Your task to perform on an android device: What's the weather today? Image 0: 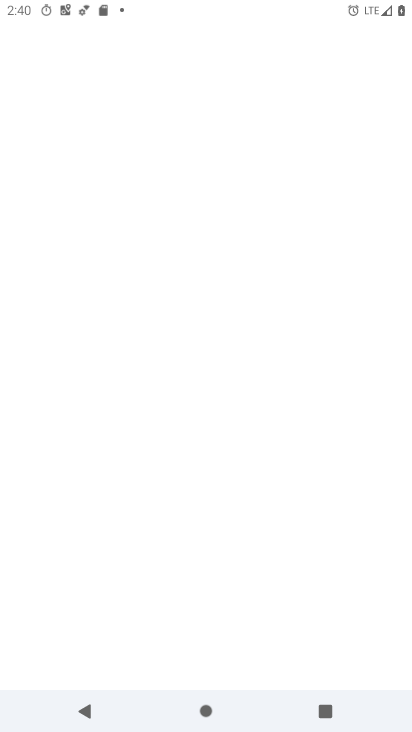
Step 0: drag from (270, 617) to (339, 211)
Your task to perform on an android device: What's the weather today? Image 1: 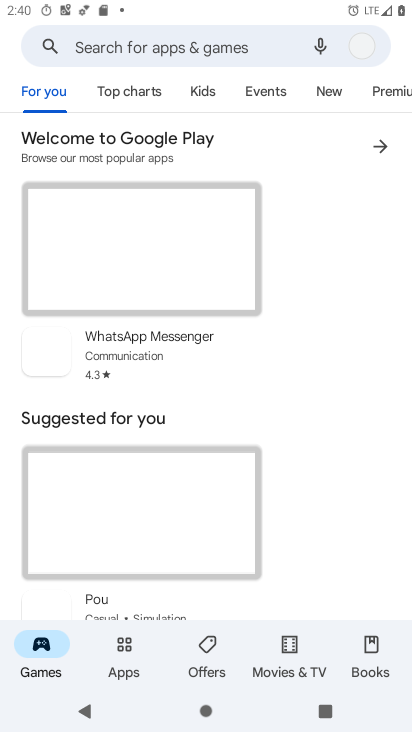
Step 1: press home button
Your task to perform on an android device: What's the weather today? Image 2: 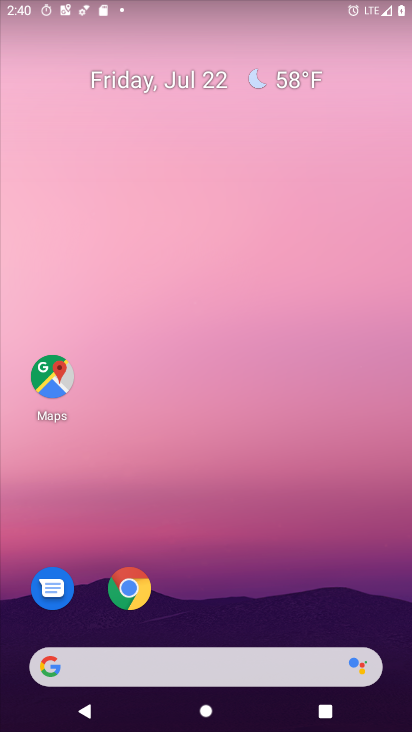
Step 2: drag from (248, 585) to (336, 114)
Your task to perform on an android device: What's the weather today? Image 3: 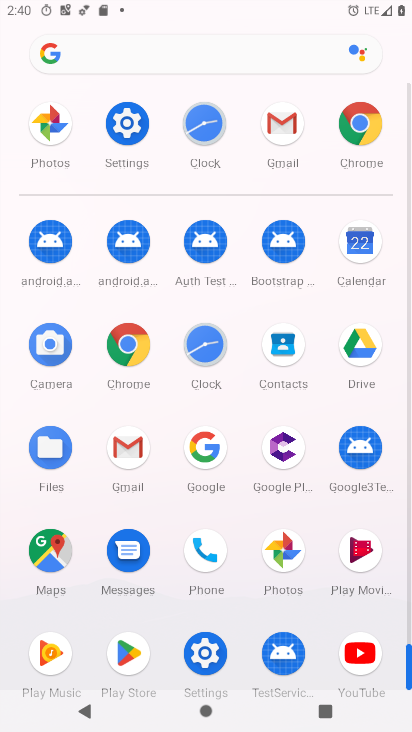
Step 3: click (113, 348)
Your task to perform on an android device: What's the weather today? Image 4: 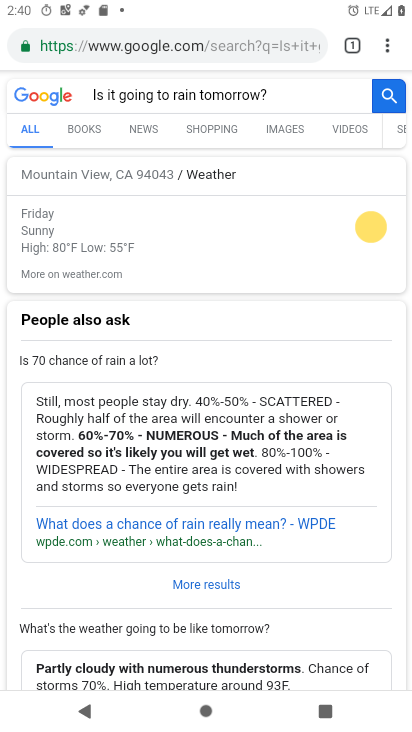
Step 4: click (196, 45)
Your task to perform on an android device: What's the weather today? Image 5: 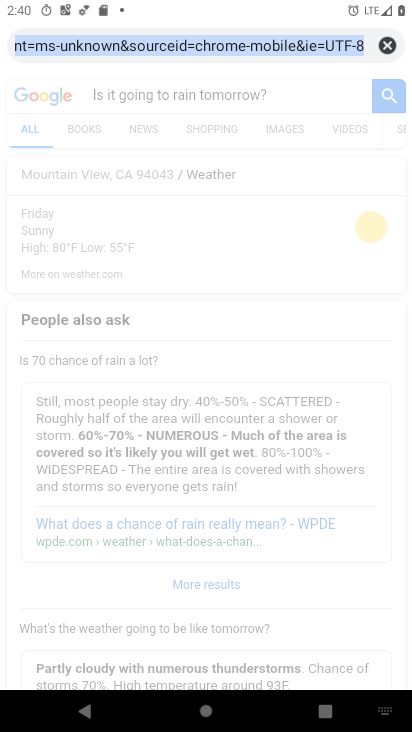
Step 5: click (382, 43)
Your task to perform on an android device: What's the weather today? Image 6: 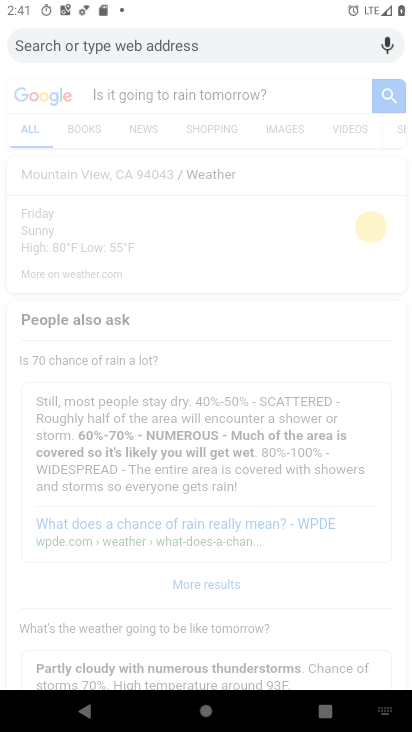
Step 6: type "What's the weather today?"
Your task to perform on an android device: What's the weather today? Image 7: 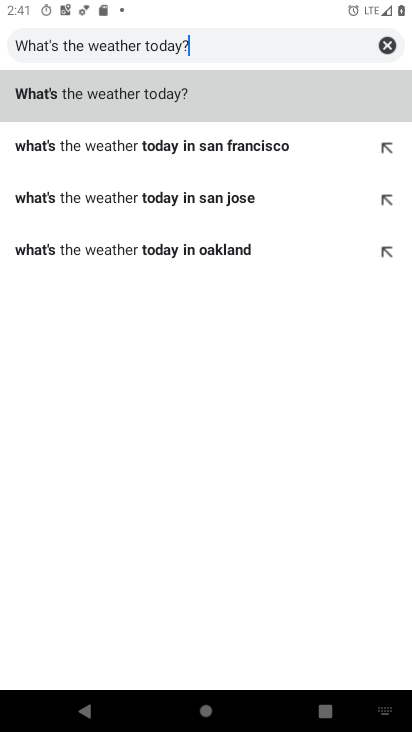
Step 7: click (122, 94)
Your task to perform on an android device: What's the weather today? Image 8: 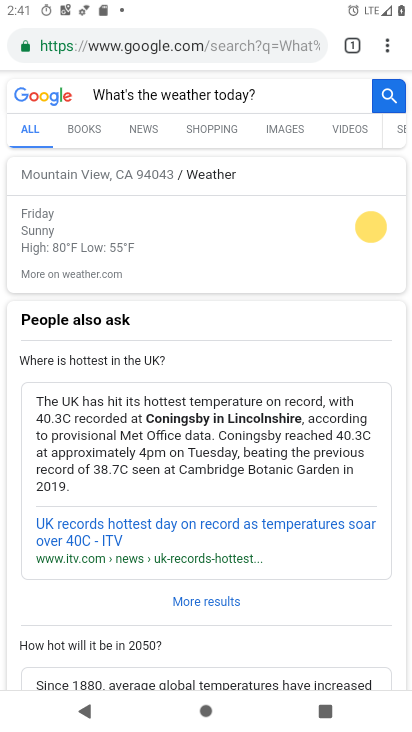
Step 8: task complete